Your task to perform on an android device: Open maps Image 0: 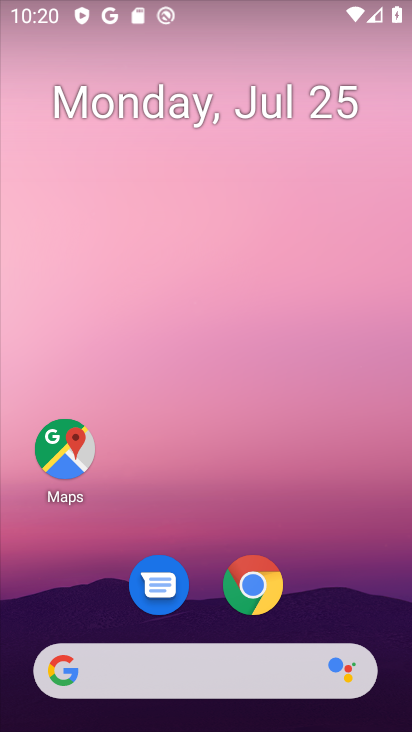
Step 0: click (66, 445)
Your task to perform on an android device: Open maps Image 1: 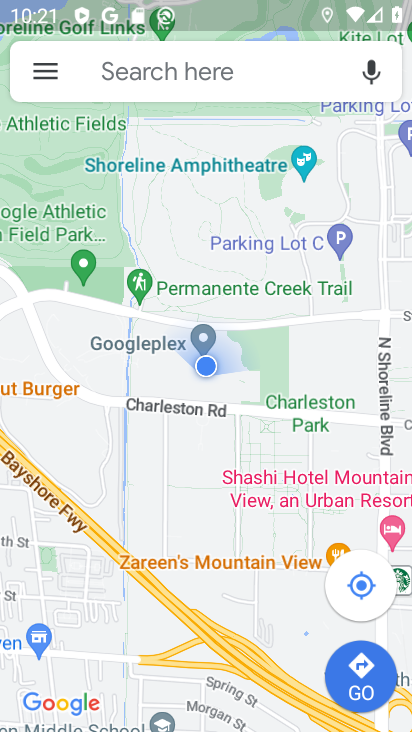
Step 1: task complete